Your task to perform on an android device: Go to display settings Image 0: 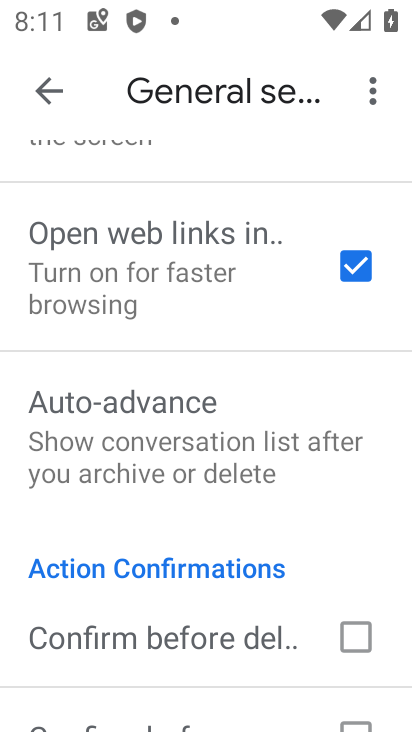
Step 0: press home button
Your task to perform on an android device: Go to display settings Image 1: 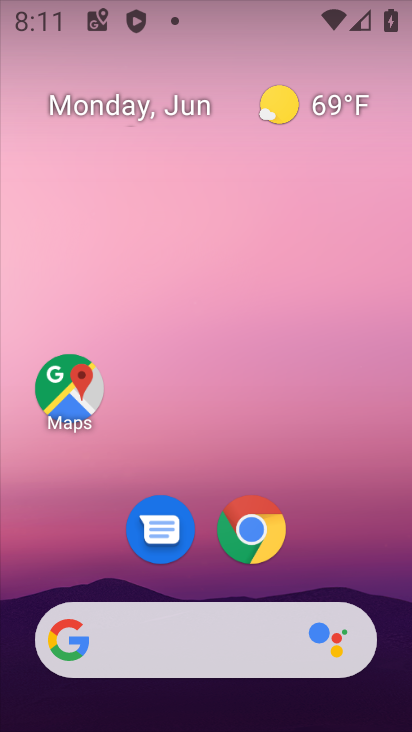
Step 1: drag from (360, 556) to (386, 317)
Your task to perform on an android device: Go to display settings Image 2: 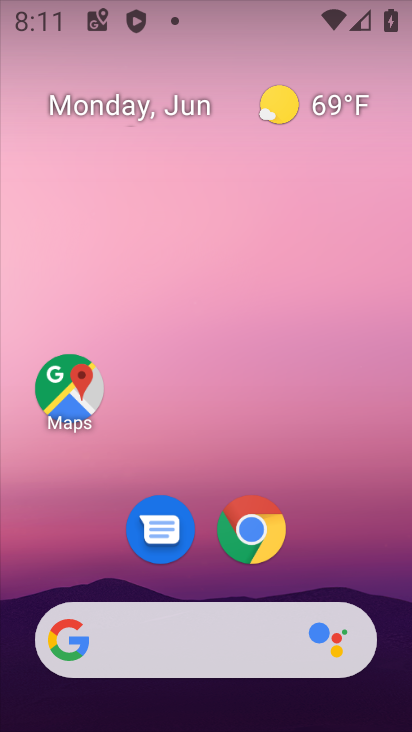
Step 2: drag from (364, 552) to (406, 266)
Your task to perform on an android device: Go to display settings Image 3: 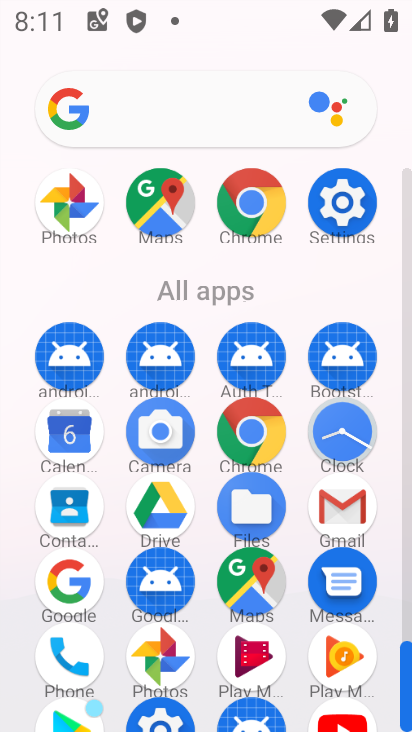
Step 3: click (344, 210)
Your task to perform on an android device: Go to display settings Image 4: 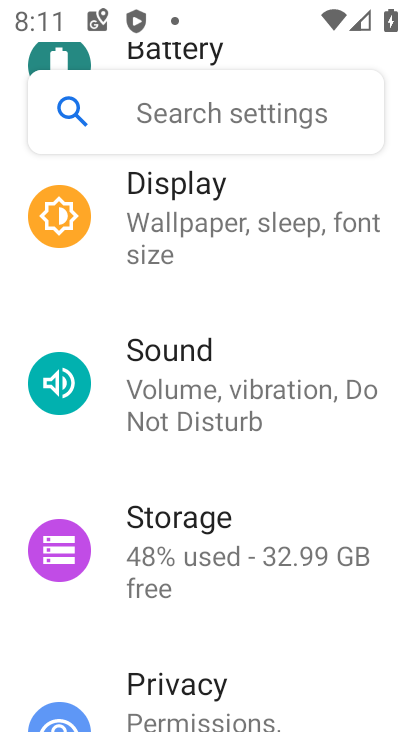
Step 4: click (246, 235)
Your task to perform on an android device: Go to display settings Image 5: 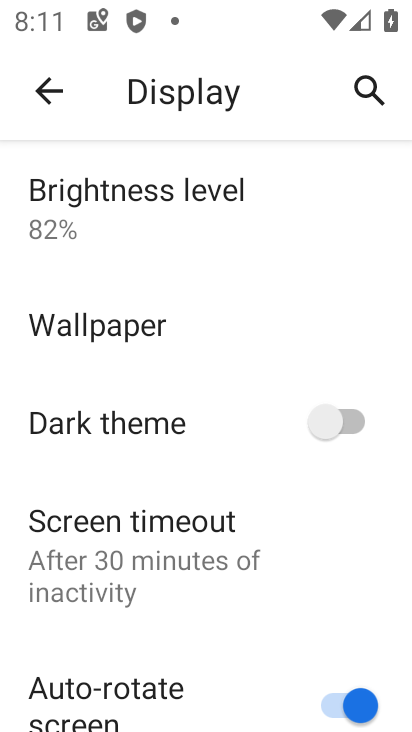
Step 5: task complete